Your task to perform on an android device: Go to location settings Image 0: 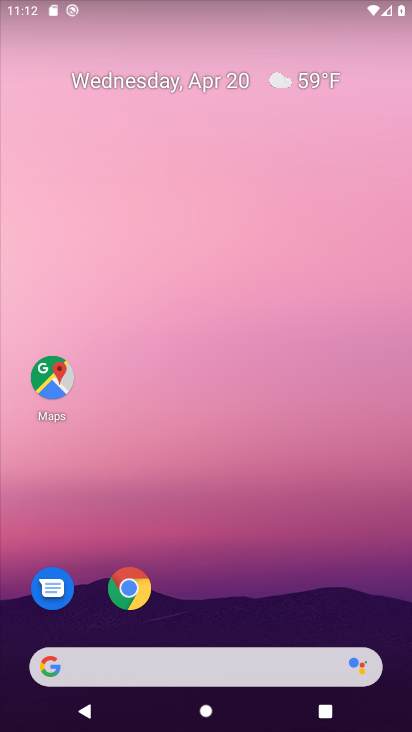
Step 0: drag from (245, 602) to (198, 11)
Your task to perform on an android device: Go to location settings Image 1: 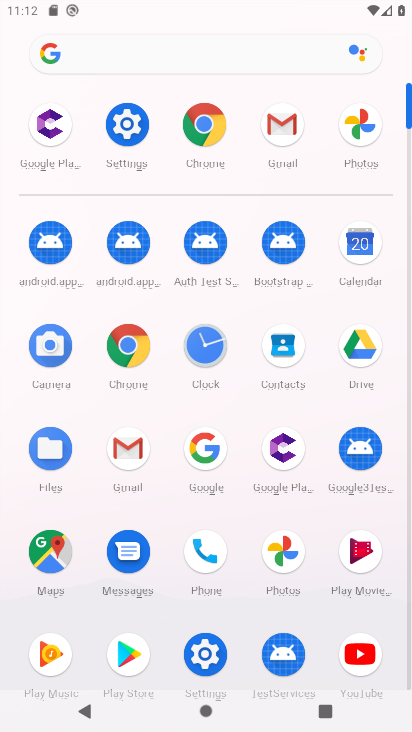
Step 1: click (126, 126)
Your task to perform on an android device: Go to location settings Image 2: 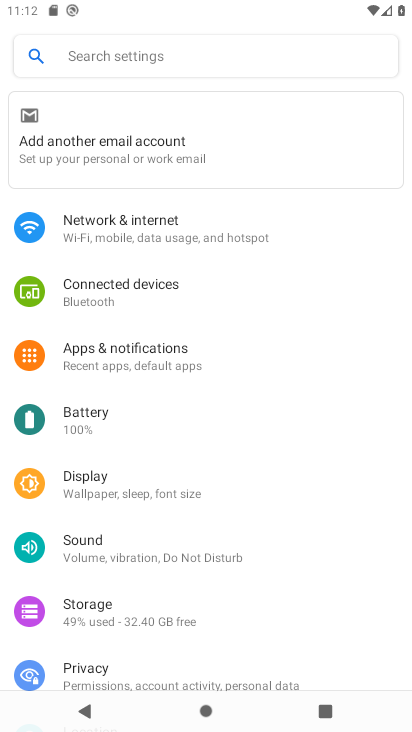
Step 2: drag from (172, 546) to (205, 94)
Your task to perform on an android device: Go to location settings Image 3: 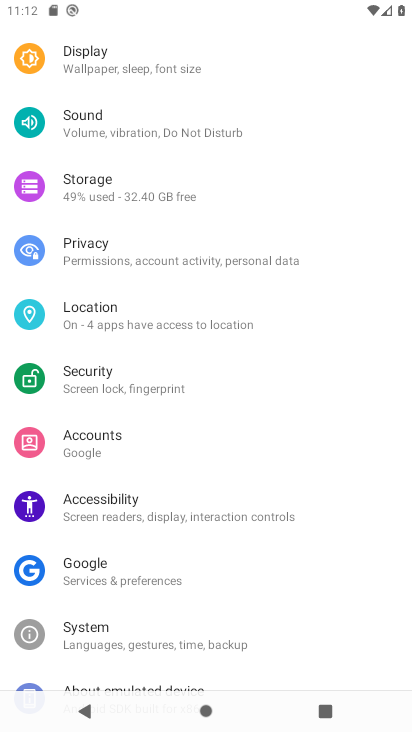
Step 3: click (92, 310)
Your task to perform on an android device: Go to location settings Image 4: 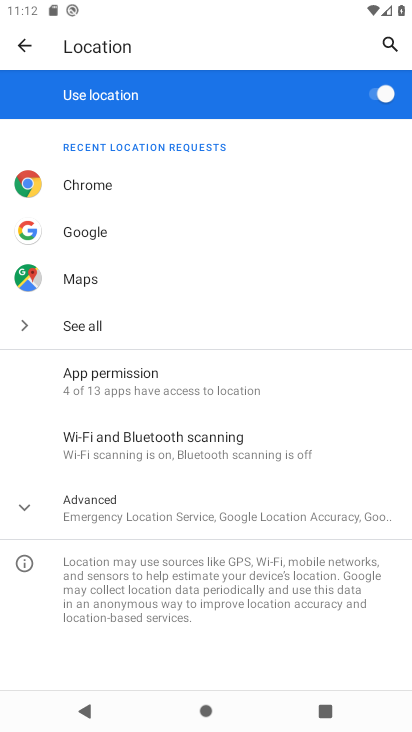
Step 4: task complete